Your task to perform on an android device: empty trash in google photos Image 0: 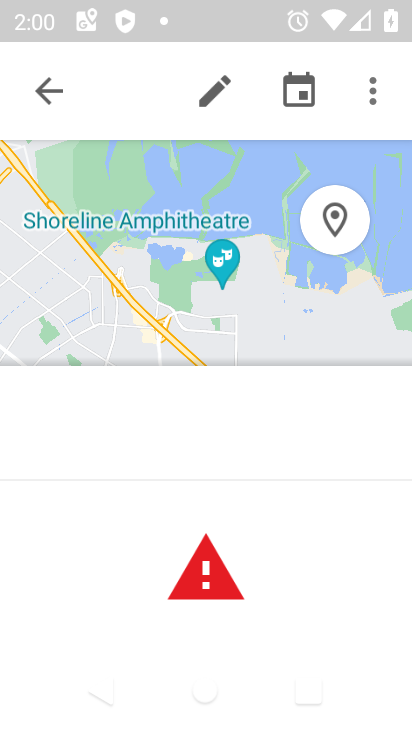
Step 0: press home button
Your task to perform on an android device: empty trash in google photos Image 1: 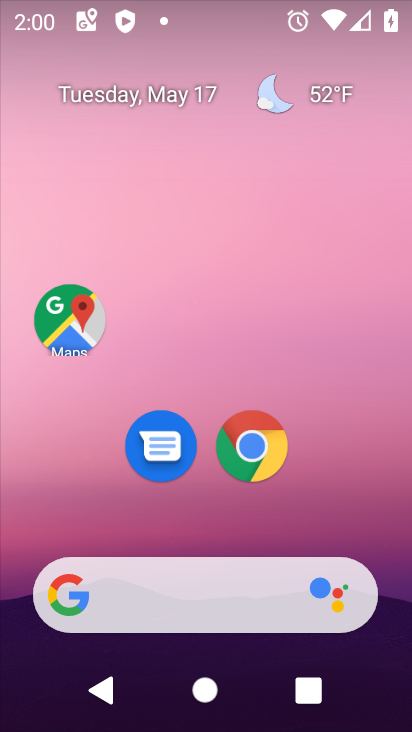
Step 1: drag from (240, 535) to (287, 249)
Your task to perform on an android device: empty trash in google photos Image 2: 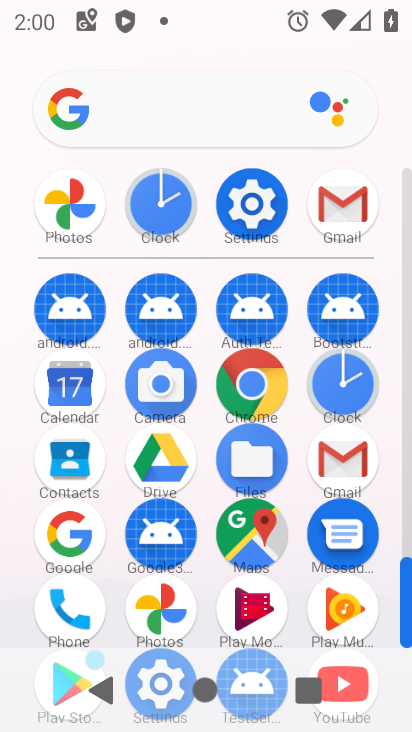
Step 2: click (161, 616)
Your task to perform on an android device: empty trash in google photos Image 3: 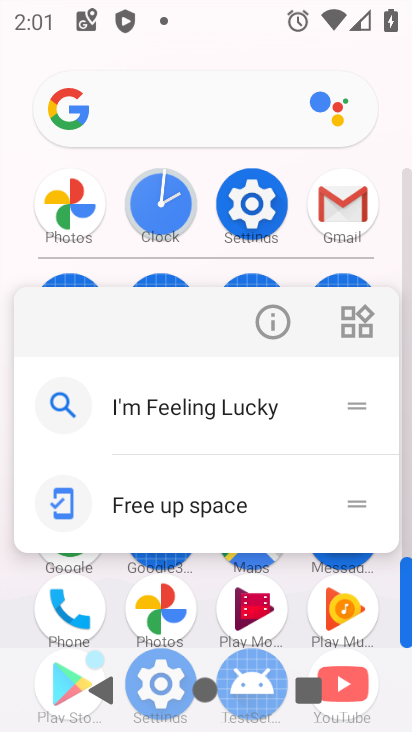
Step 3: click (158, 607)
Your task to perform on an android device: empty trash in google photos Image 4: 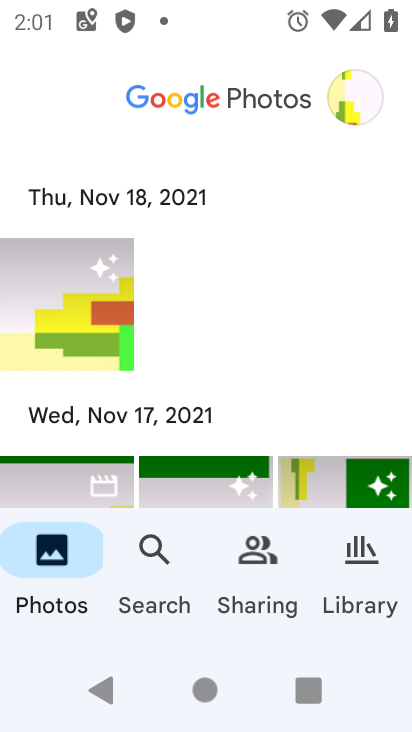
Step 4: click (346, 109)
Your task to perform on an android device: empty trash in google photos Image 5: 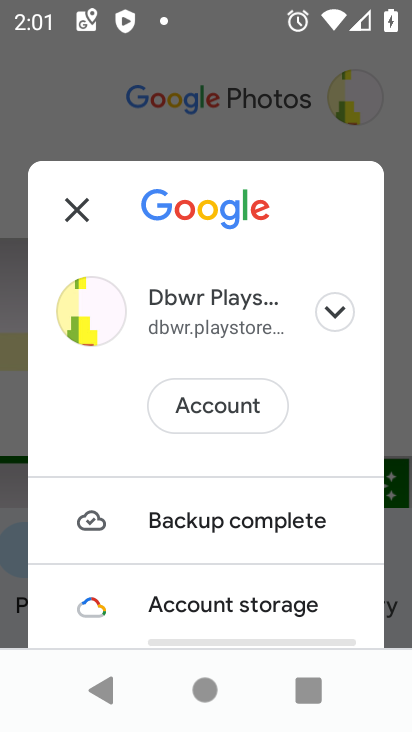
Step 5: drag from (240, 481) to (312, 266)
Your task to perform on an android device: empty trash in google photos Image 6: 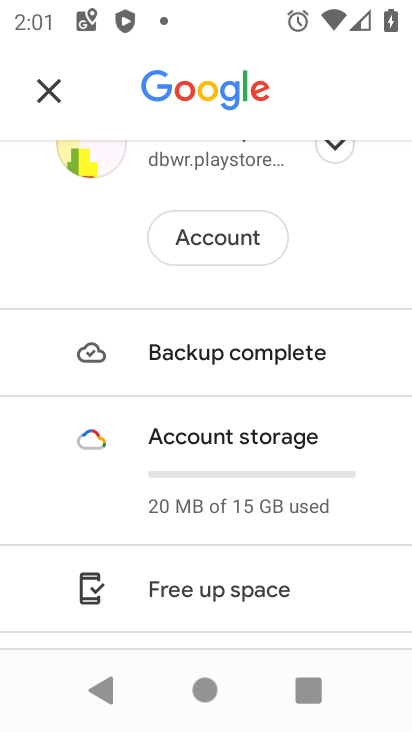
Step 6: drag from (234, 519) to (335, 121)
Your task to perform on an android device: empty trash in google photos Image 7: 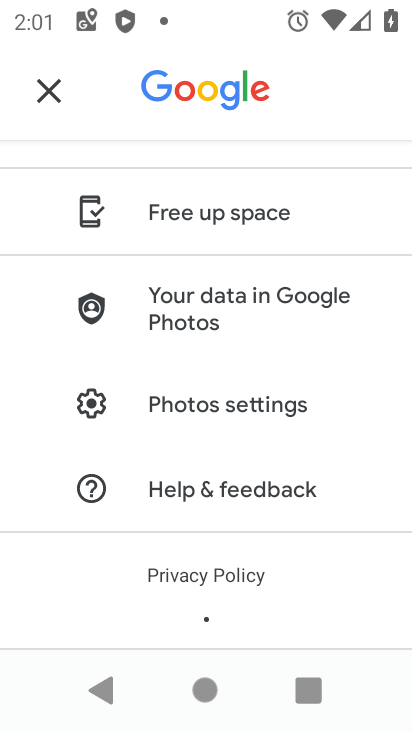
Step 7: click (109, 681)
Your task to perform on an android device: empty trash in google photos Image 8: 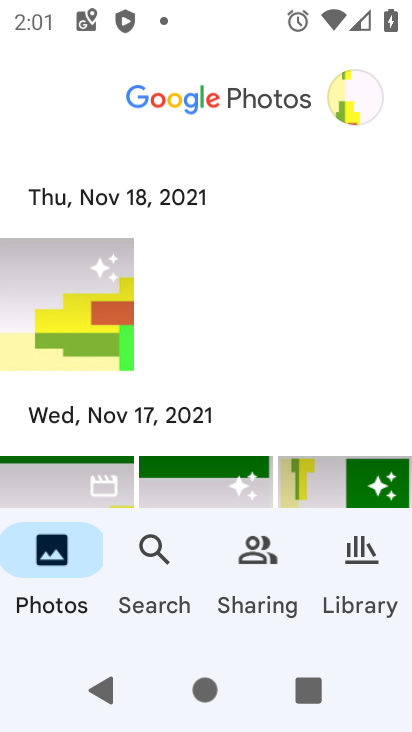
Step 8: click (354, 602)
Your task to perform on an android device: empty trash in google photos Image 9: 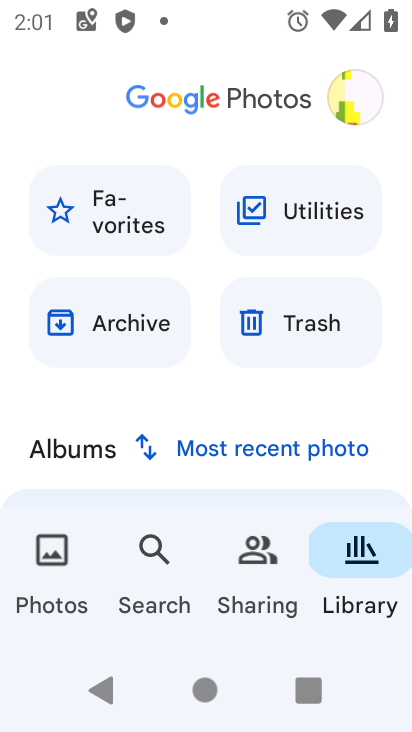
Step 9: click (307, 324)
Your task to perform on an android device: empty trash in google photos Image 10: 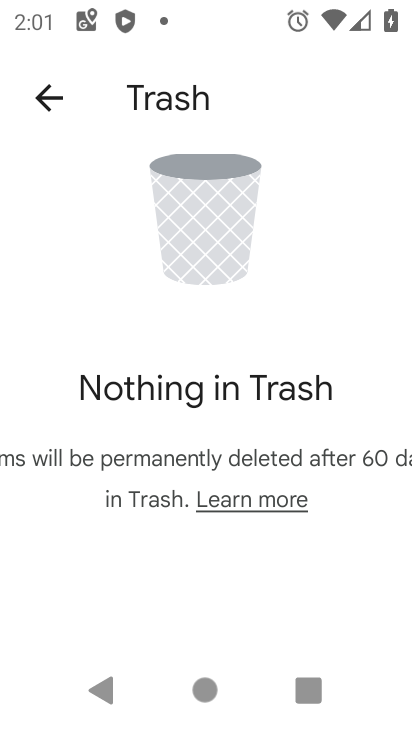
Step 10: task complete